Your task to perform on an android device: delete location history Image 0: 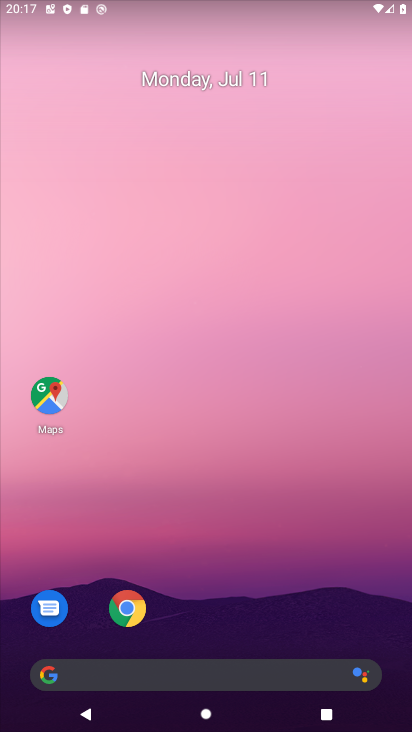
Step 0: drag from (290, 607) to (279, 116)
Your task to perform on an android device: delete location history Image 1: 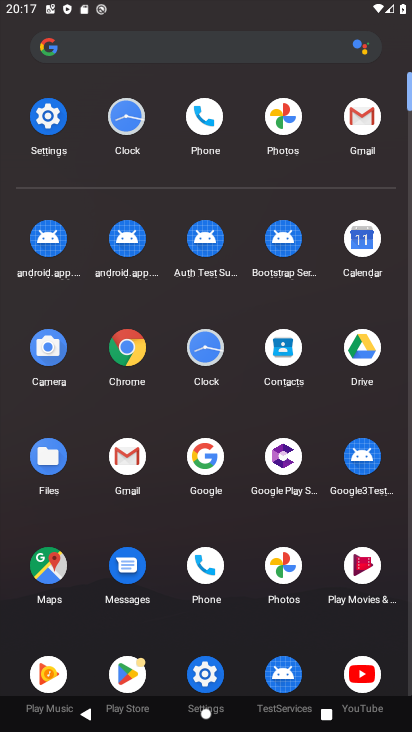
Step 1: click (52, 138)
Your task to perform on an android device: delete location history Image 2: 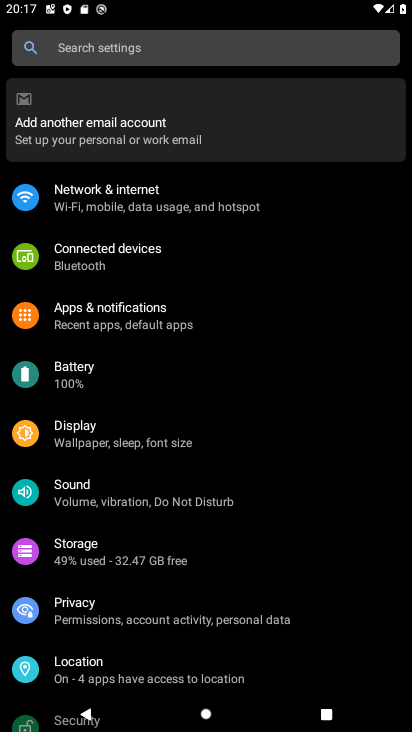
Step 2: click (121, 656)
Your task to perform on an android device: delete location history Image 3: 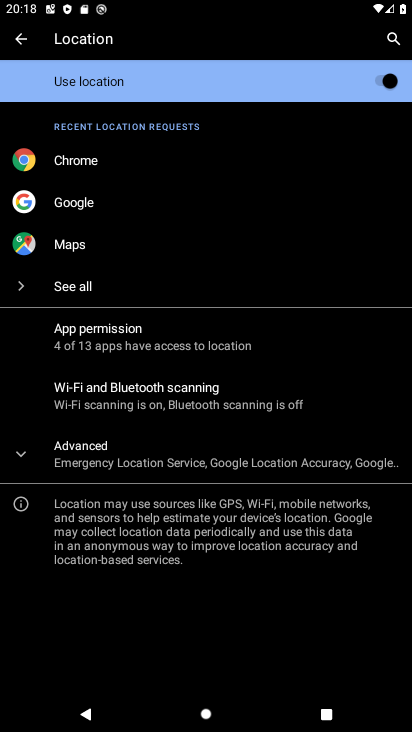
Step 3: click (125, 449)
Your task to perform on an android device: delete location history Image 4: 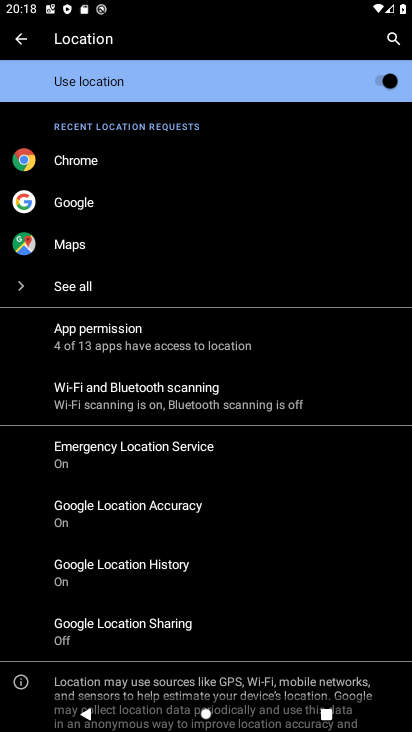
Step 4: click (133, 554)
Your task to perform on an android device: delete location history Image 5: 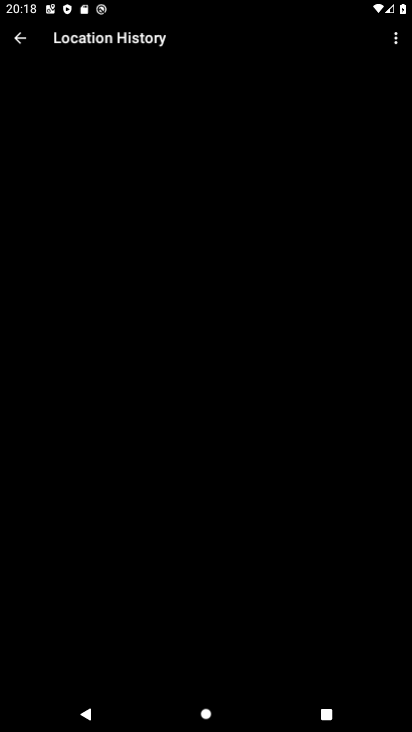
Step 5: task complete